Your task to perform on an android device: visit the assistant section in the google photos Image 0: 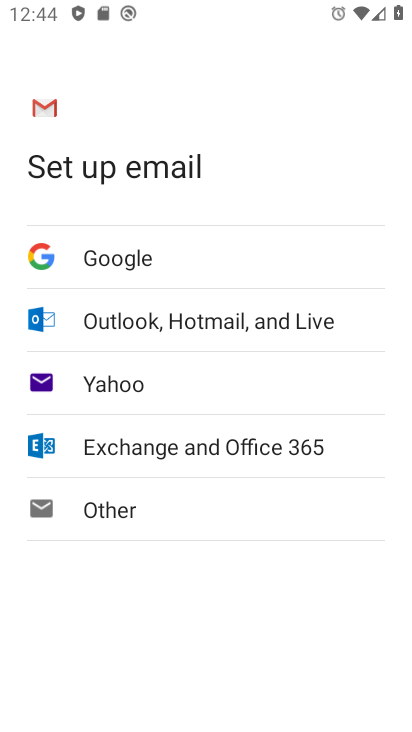
Step 0: press home button
Your task to perform on an android device: visit the assistant section in the google photos Image 1: 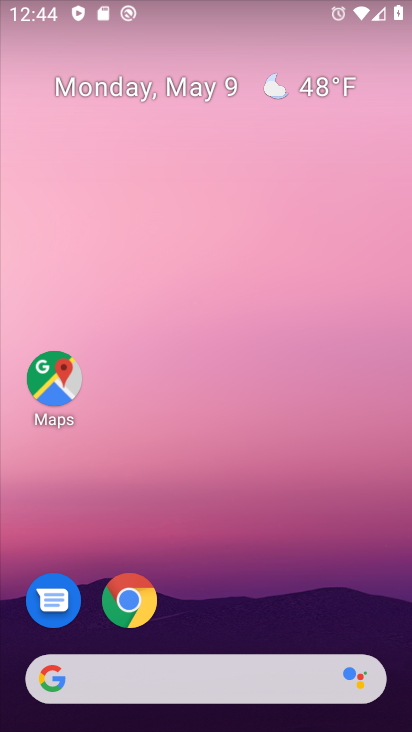
Step 1: drag from (188, 595) to (207, 204)
Your task to perform on an android device: visit the assistant section in the google photos Image 2: 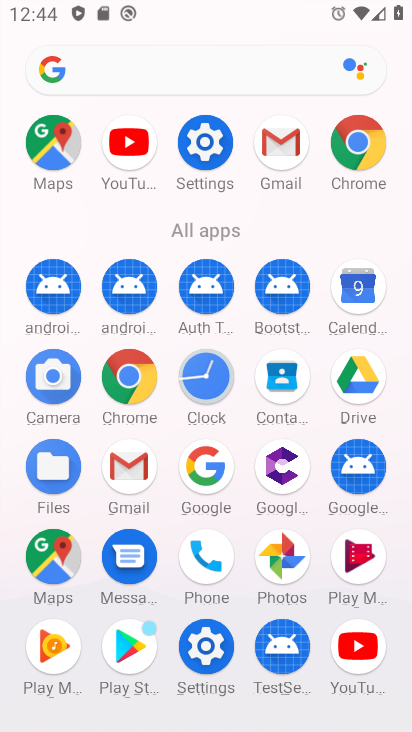
Step 2: click (289, 566)
Your task to perform on an android device: visit the assistant section in the google photos Image 3: 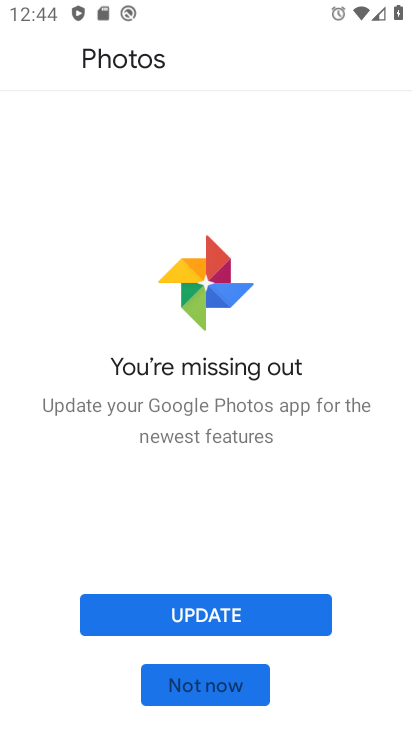
Step 3: click (210, 617)
Your task to perform on an android device: visit the assistant section in the google photos Image 4: 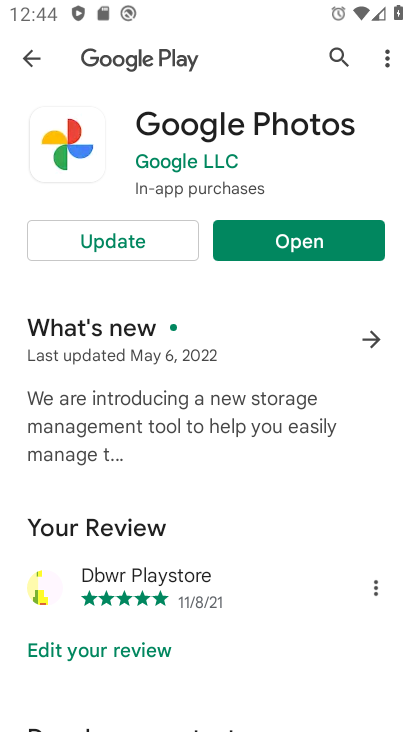
Step 4: click (103, 225)
Your task to perform on an android device: visit the assistant section in the google photos Image 5: 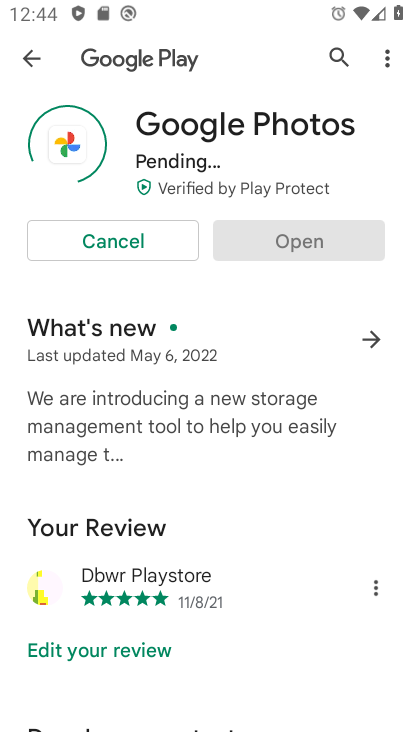
Step 5: click (28, 53)
Your task to perform on an android device: visit the assistant section in the google photos Image 6: 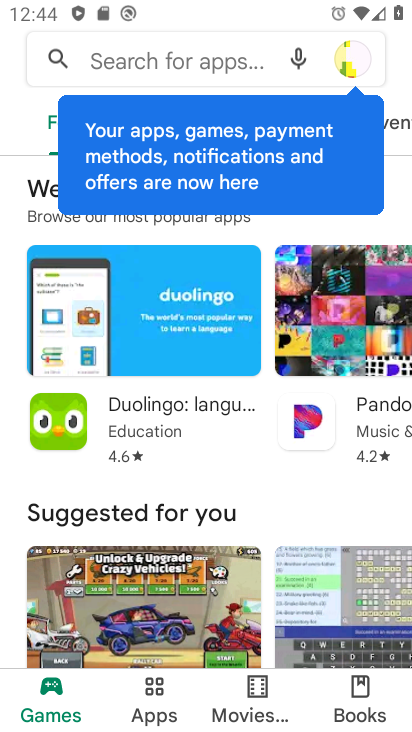
Step 6: press back button
Your task to perform on an android device: visit the assistant section in the google photos Image 7: 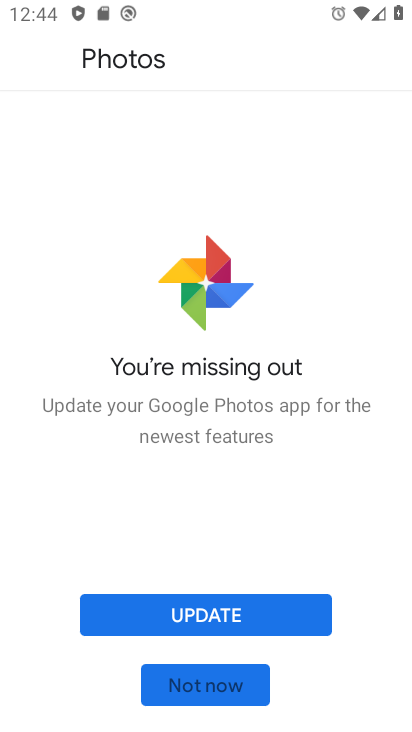
Step 7: click (210, 609)
Your task to perform on an android device: visit the assistant section in the google photos Image 8: 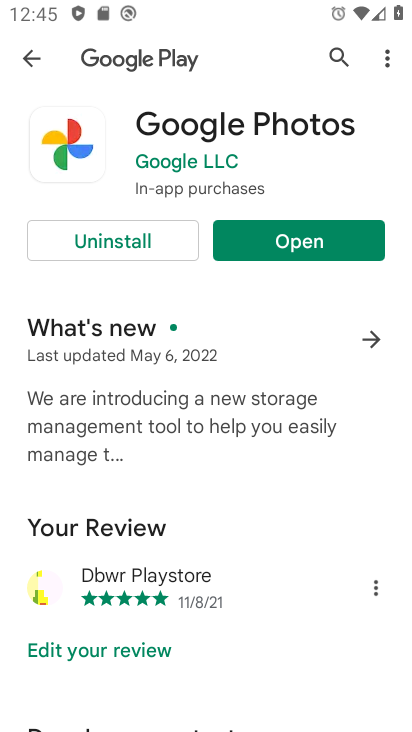
Step 8: click (330, 242)
Your task to perform on an android device: visit the assistant section in the google photos Image 9: 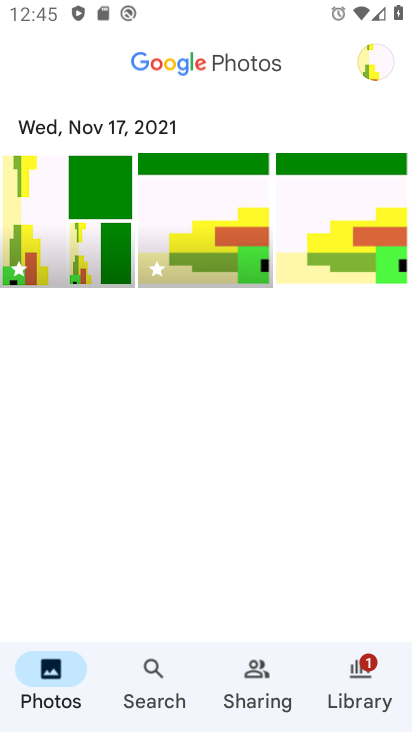
Step 9: click (347, 675)
Your task to perform on an android device: visit the assistant section in the google photos Image 10: 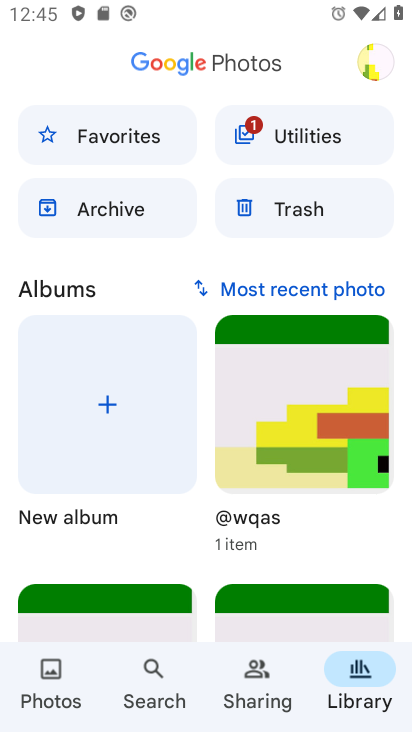
Step 10: click (377, 55)
Your task to perform on an android device: visit the assistant section in the google photos Image 11: 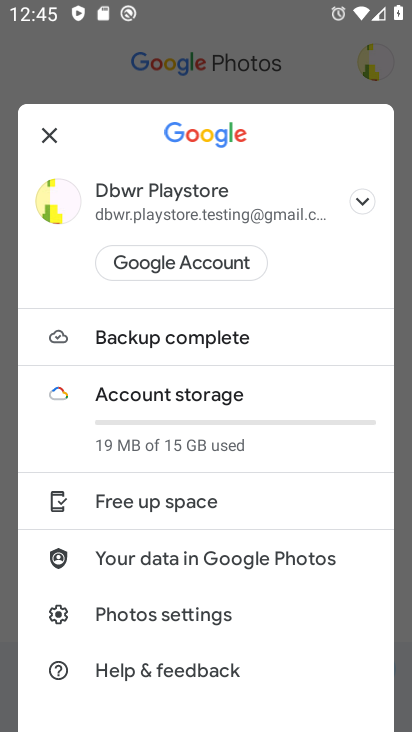
Step 11: drag from (170, 656) to (193, 580)
Your task to perform on an android device: visit the assistant section in the google photos Image 12: 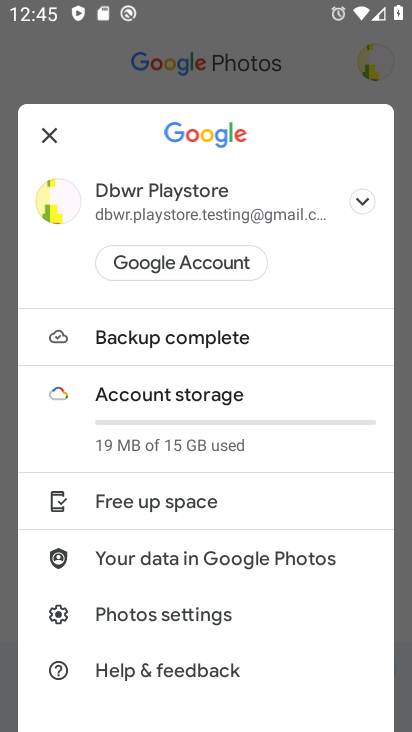
Step 12: drag from (187, 615) to (208, 428)
Your task to perform on an android device: visit the assistant section in the google photos Image 13: 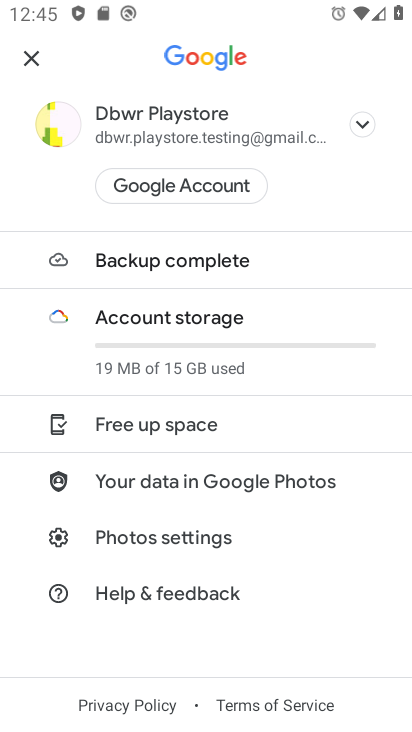
Step 13: click (202, 535)
Your task to perform on an android device: visit the assistant section in the google photos Image 14: 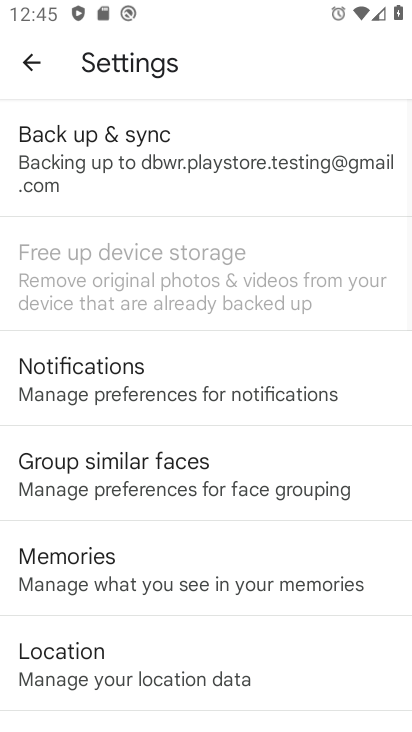
Step 14: drag from (181, 594) to (224, 246)
Your task to perform on an android device: visit the assistant section in the google photos Image 15: 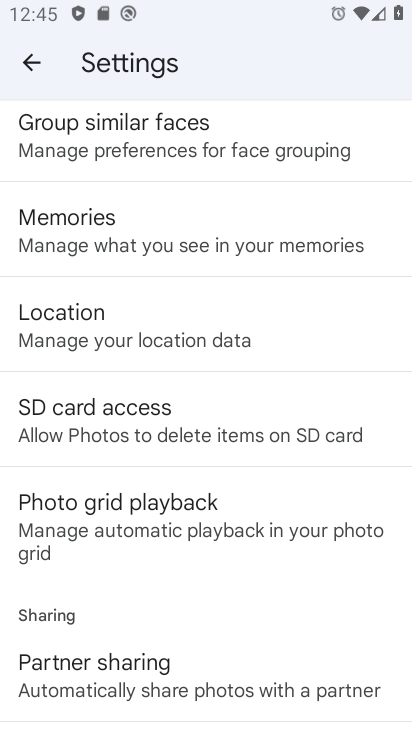
Step 15: drag from (198, 596) to (248, 292)
Your task to perform on an android device: visit the assistant section in the google photos Image 16: 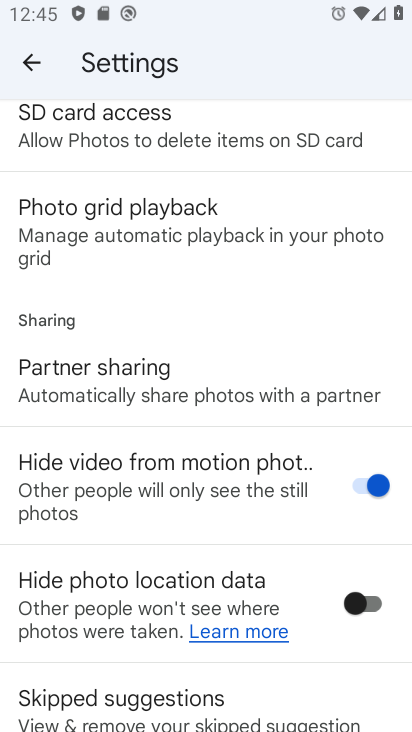
Step 16: drag from (190, 597) to (259, 150)
Your task to perform on an android device: visit the assistant section in the google photos Image 17: 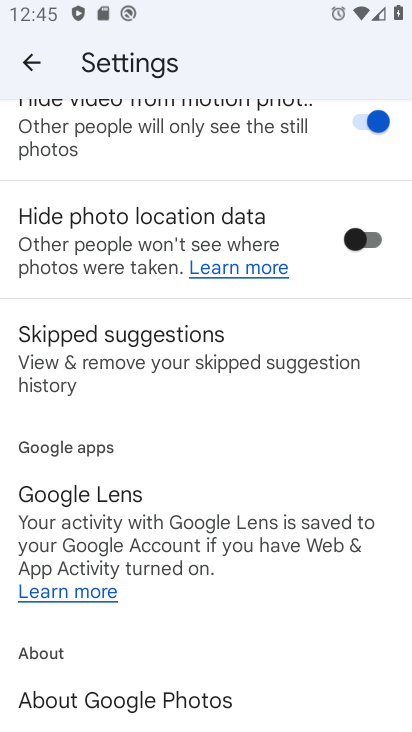
Step 17: drag from (268, 674) to (348, 121)
Your task to perform on an android device: visit the assistant section in the google photos Image 18: 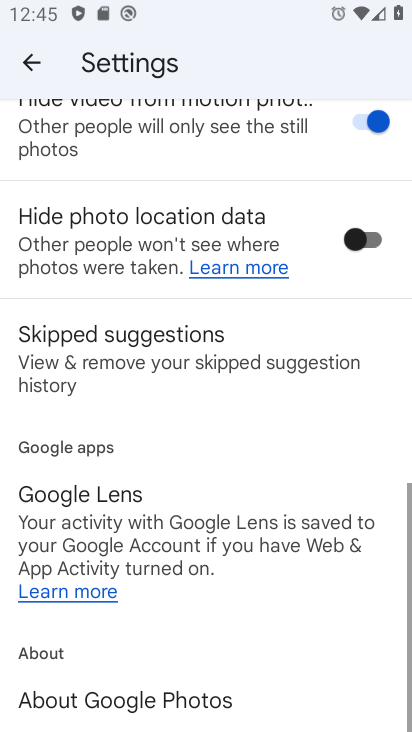
Step 18: click (175, 700)
Your task to perform on an android device: visit the assistant section in the google photos Image 19: 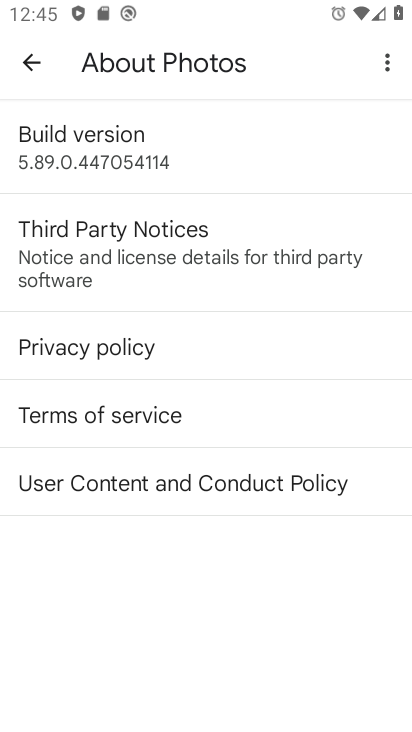
Step 19: click (19, 56)
Your task to perform on an android device: visit the assistant section in the google photos Image 20: 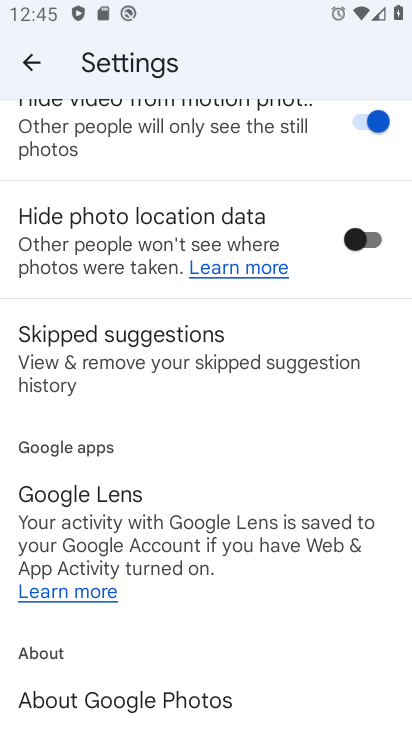
Step 20: click (19, 56)
Your task to perform on an android device: visit the assistant section in the google photos Image 21: 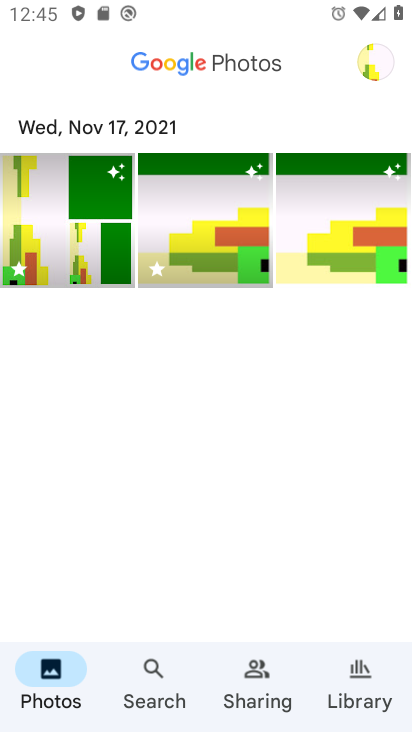
Step 21: click (253, 678)
Your task to perform on an android device: visit the assistant section in the google photos Image 22: 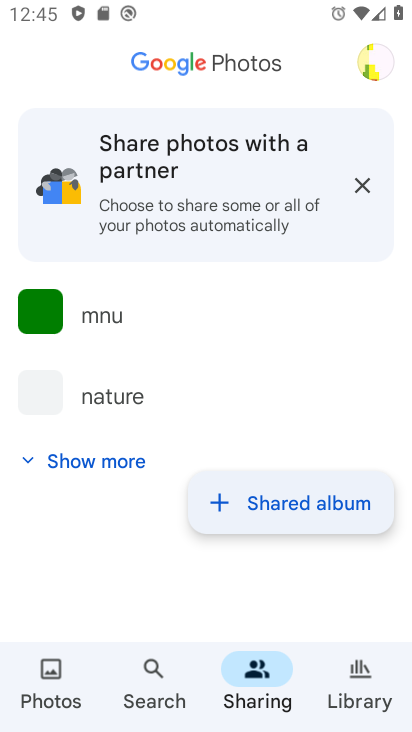
Step 22: click (33, 668)
Your task to perform on an android device: visit the assistant section in the google photos Image 23: 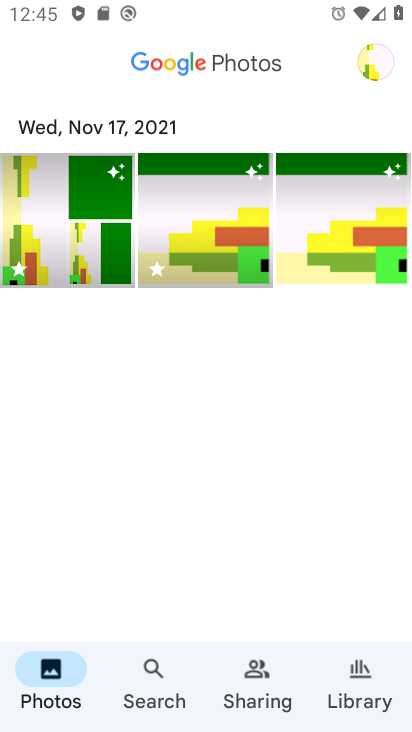
Step 23: task complete